Your task to perform on an android device: What is the recent news? Image 0: 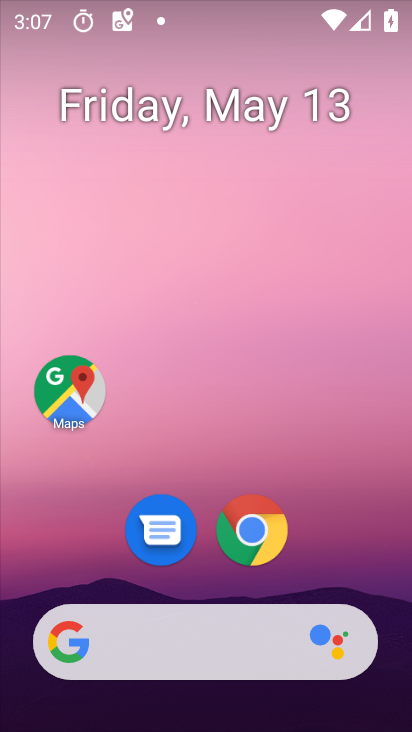
Step 0: drag from (308, 486) to (306, 177)
Your task to perform on an android device: What is the recent news? Image 1: 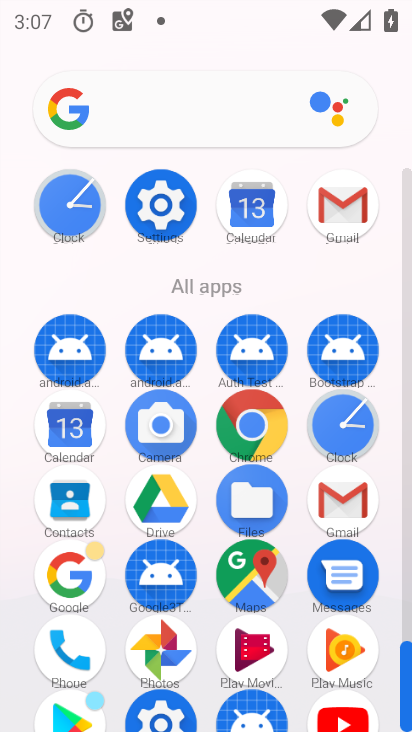
Step 1: click (260, 422)
Your task to perform on an android device: What is the recent news? Image 2: 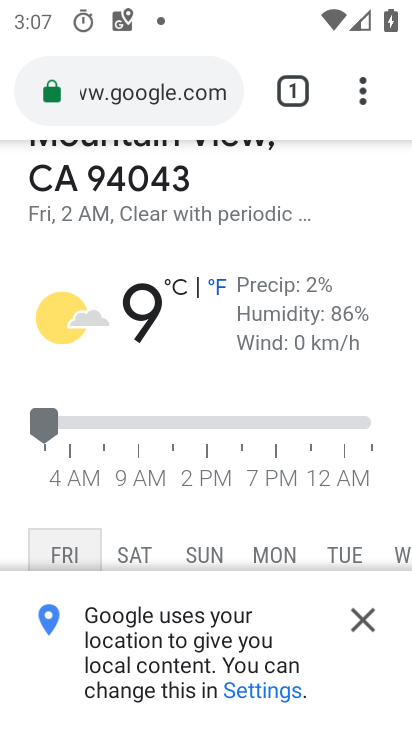
Step 2: click (187, 86)
Your task to perform on an android device: What is the recent news? Image 3: 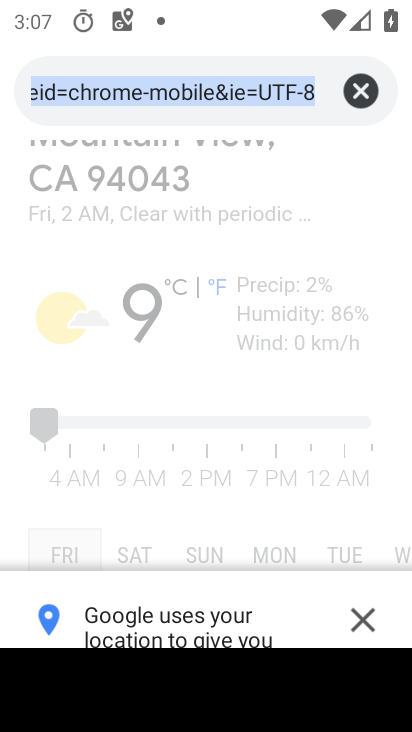
Step 3: type "news"
Your task to perform on an android device: What is the recent news? Image 4: 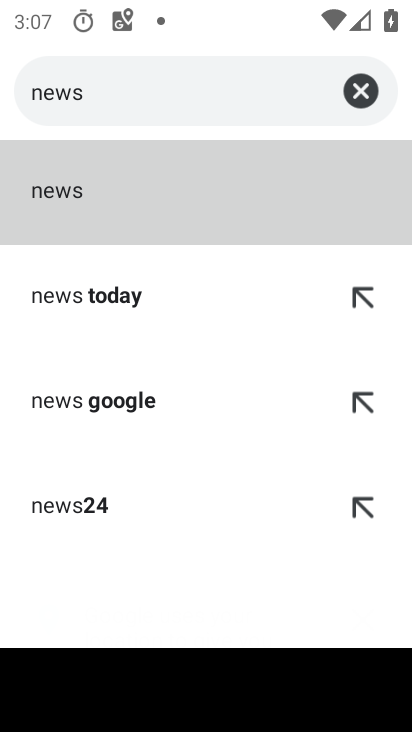
Step 4: click (77, 193)
Your task to perform on an android device: What is the recent news? Image 5: 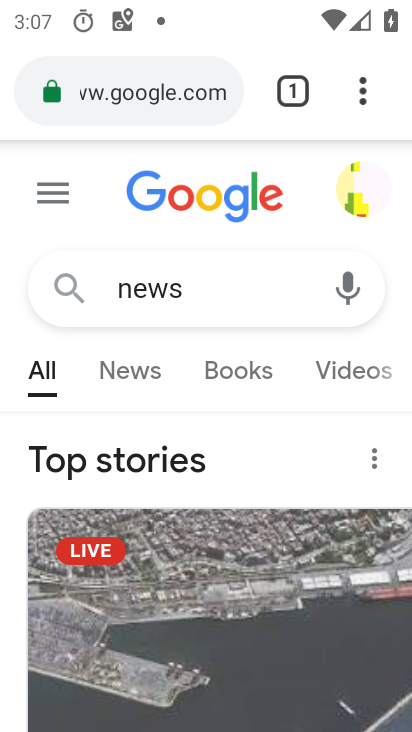
Step 5: click (148, 361)
Your task to perform on an android device: What is the recent news? Image 6: 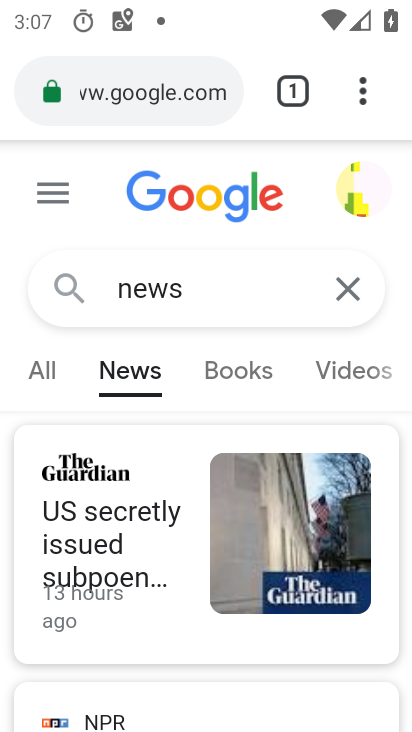
Step 6: task complete